Your task to perform on an android device: Do I have any events tomorrow? Image 0: 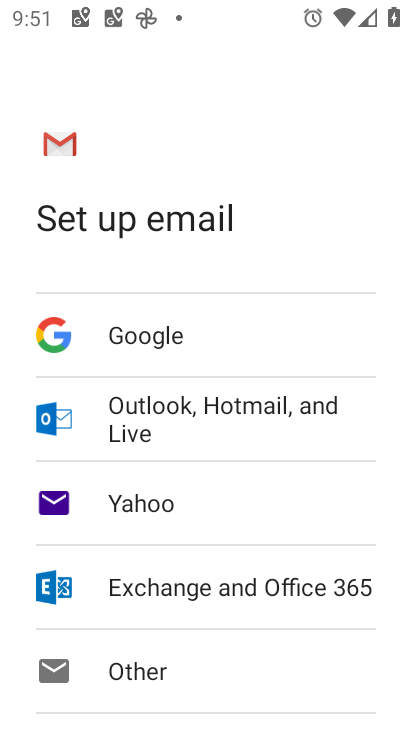
Step 0: press home button
Your task to perform on an android device: Do I have any events tomorrow? Image 1: 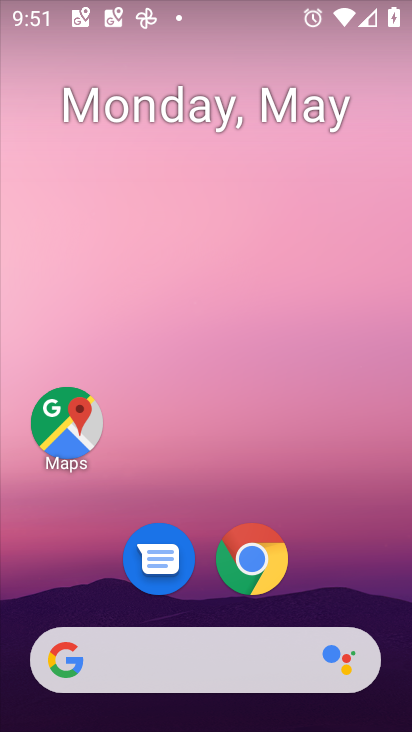
Step 1: drag from (401, 642) to (258, 57)
Your task to perform on an android device: Do I have any events tomorrow? Image 2: 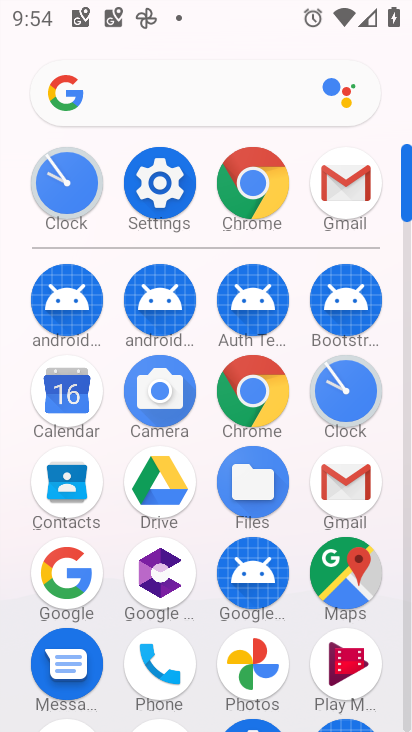
Step 2: click (60, 403)
Your task to perform on an android device: Do I have any events tomorrow? Image 3: 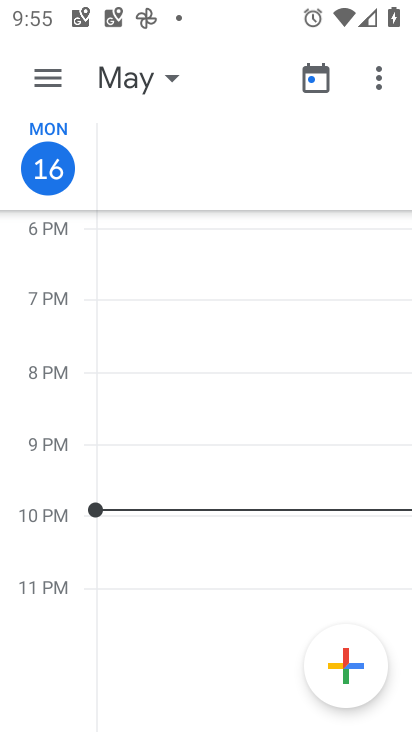
Step 3: click (140, 72)
Your task to perform on an android device: Do I have any events tomorrow? Image 4: 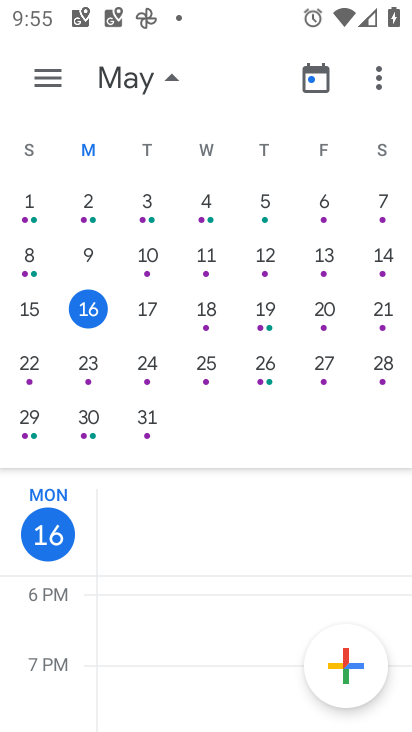
Step 4: click (216, 309)
Your task to perform on an android device: Do I have any events tomorrow? Image 5: 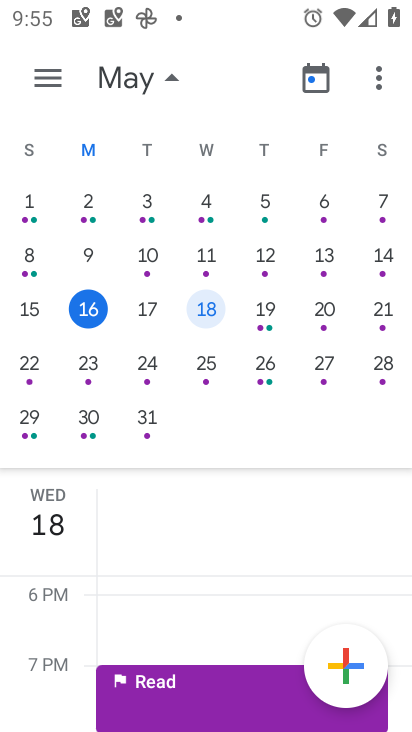
Step 5: task complete